Your task to perform on an android device: Go to settings Image 0: 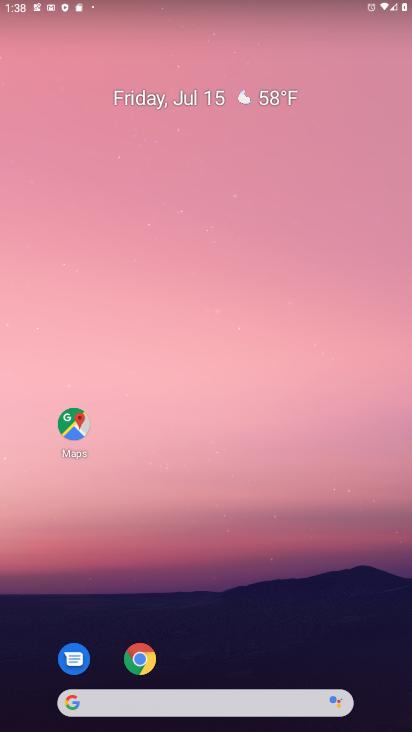
Step 0: drag from (255, 727) to (246, 200)
Your task to perform on an android device: Go to settings Image 1: 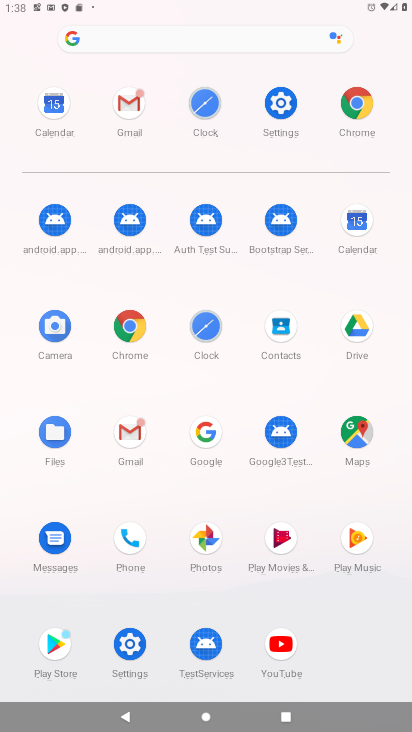
Step 1: click (272, 109)
Your task to perform on an android device: Go to settings Image 2: 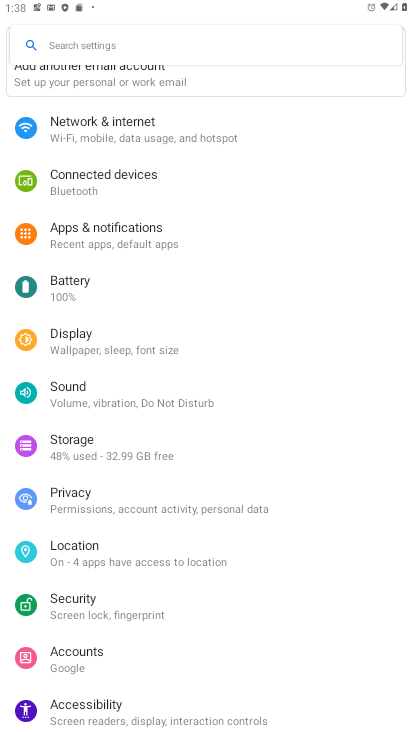
Step 2: task complete